Your task to perform on an android device: delete browsing data in the chrome app Image 0: 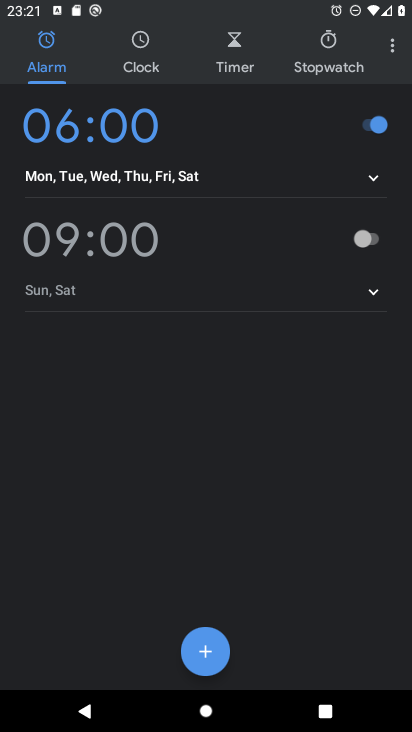
Step 0: press home button
Your task to perform on an android device: delete browsing data in the chrome app Image 1: 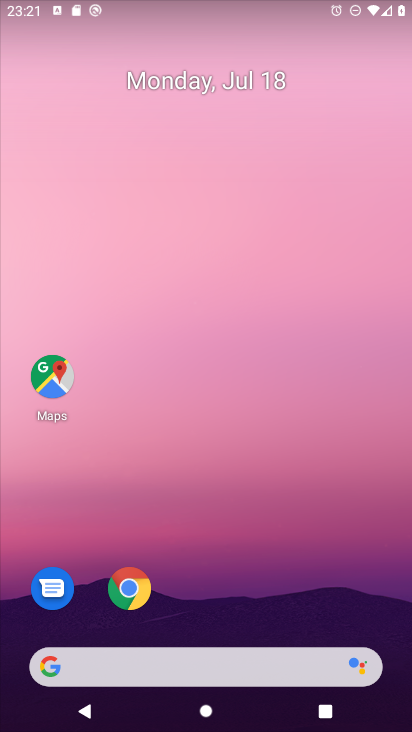
Step 1: click (131, 593)
Your task to perform on an android device: delete browsing data in the chrome app Image 2: 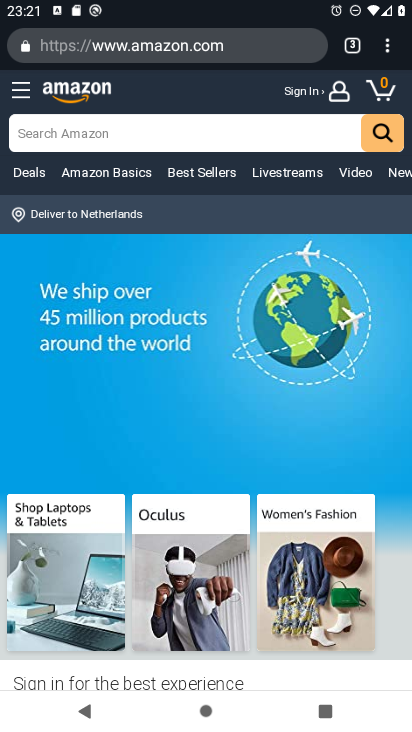
Step 2: click (385, 44)
Your task to perform on an android device: delete browsing data in the chrome app Image 3: 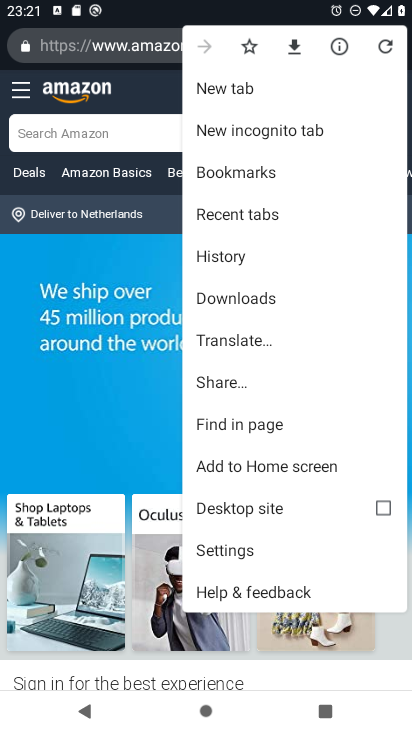
Step 3: click (218, 256)
Your task to perform on an android device: delete browsing data in the chrome app Image 4: 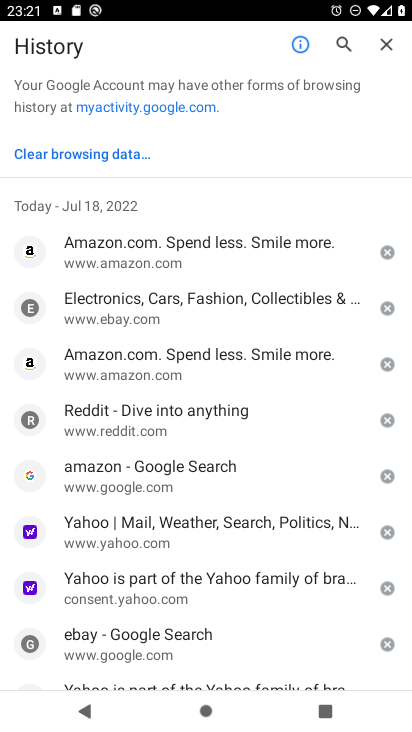
Step 4: click (71, 154)
Your task to perform on an android device: delete browsing data in the chrome app Image 5: 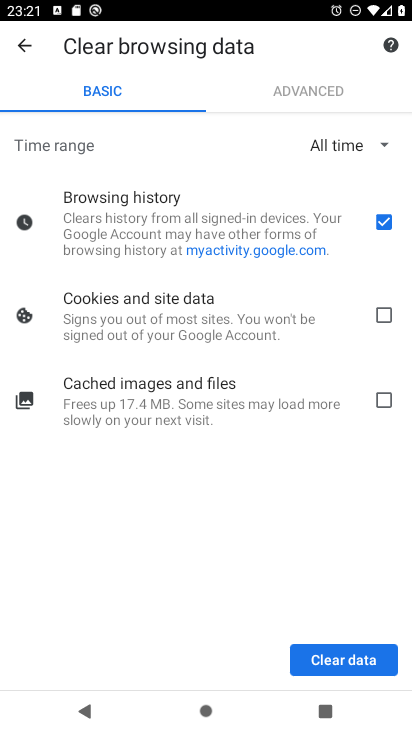
Step 5: click (344, 661)
Your task to perform on an android device: delete browsing data in the chrome app Image 6: 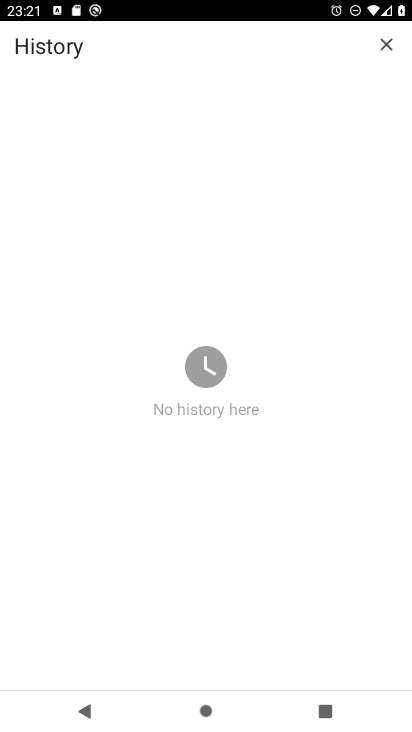
Step 6: task complete